Your task to perform on an android device: remove spam from my inbox in the gmail app Image 0: 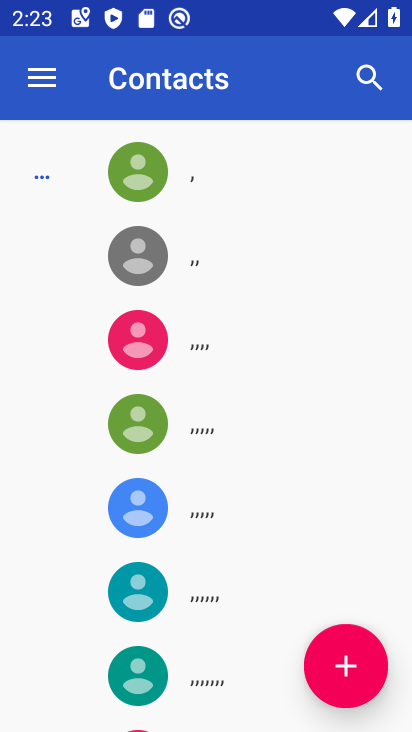
Step 0: press home button
Your task to perform on an android device: remove spam from my inbox in the gmail app Image 1: 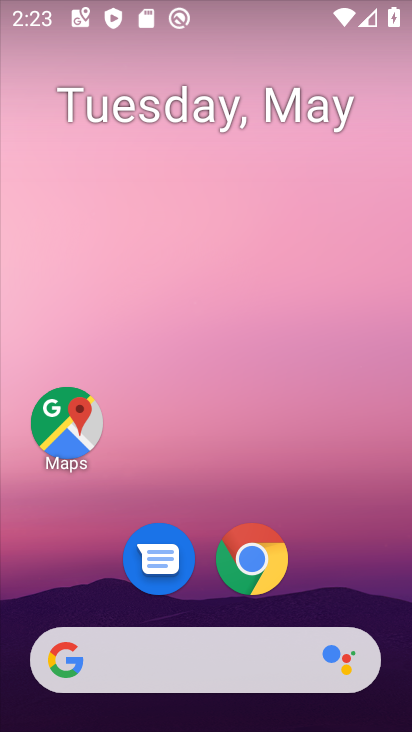
Step 1: drag from (222, 658) to (324, 187)
Your task to perform on an android device: remove spam from my inbox in the gmail app Image 2: 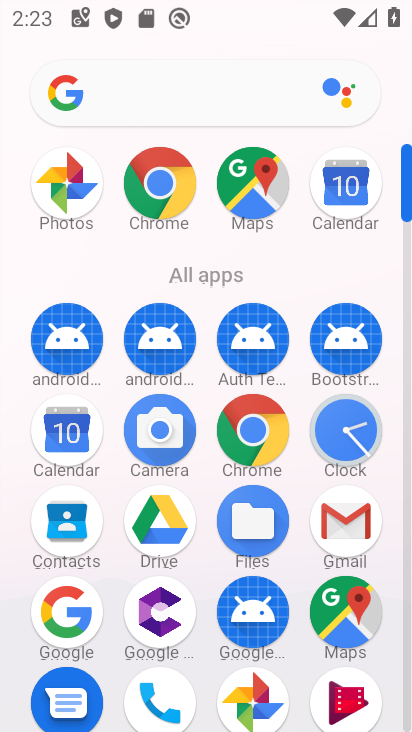
Step 2: click (345, 523)
Your task to perform on an android device: remove spam from my inbox in the gmail app Image 3: 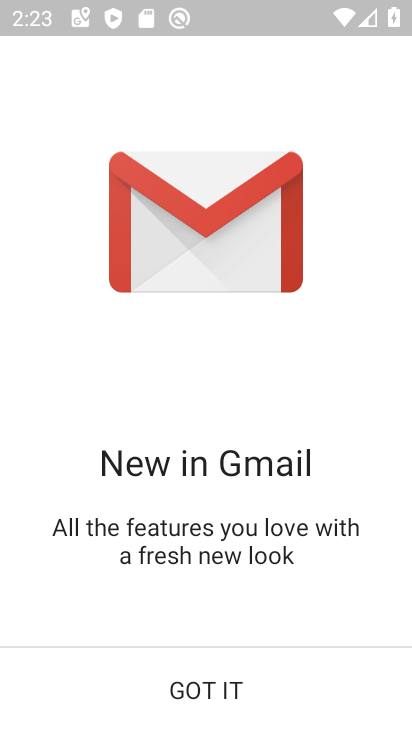
Step 3: click (208, 688)
Your task to perform on an android device: remove spam from my inbox in the gmail app Image 4: 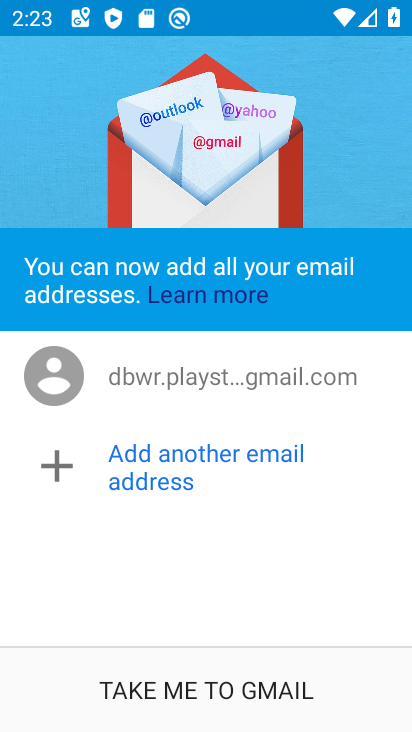
Step 4: click (208, 689)
Your task to perform on an android device: remove spam from my inbox in the gmail app Image 5: 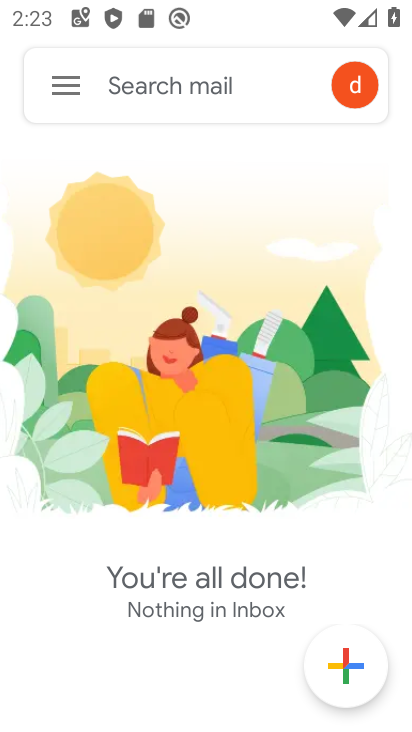
Step 5: click (76, 88)
Your task to perform on an android device: remove spam from my inbox in the gmail app Image 6: 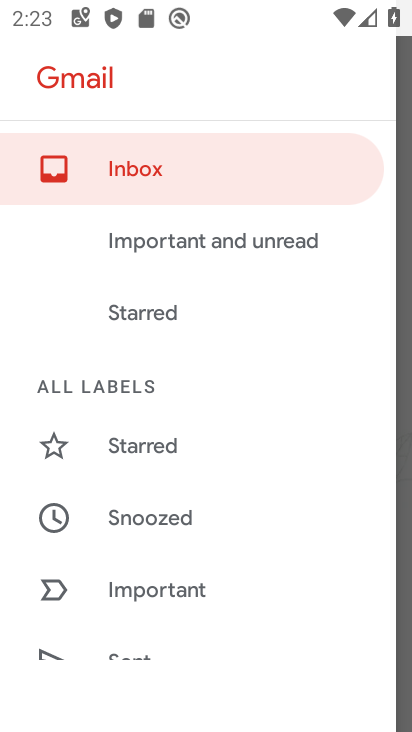
Step 6: drag from (228, 560) to (334, 153)
Your task to perform on an android device: remove spam from my inbox in the gmail app Image 7: 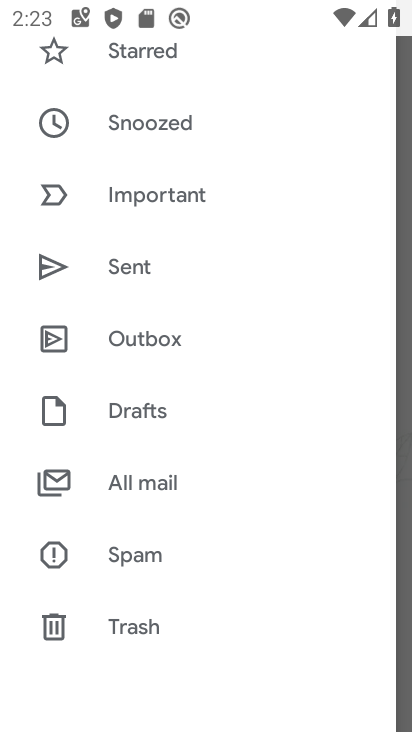
Step 7: click (141, 546)
Your task to perform on an android device: remove spam from my inbox in the gmail app Image 8: 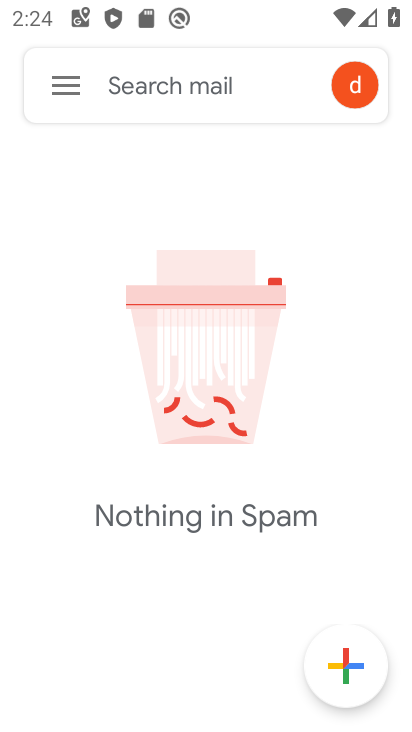
Step 8: task complete